Your task to perform on an android device: Do I have any events tomorrow? Image 0: 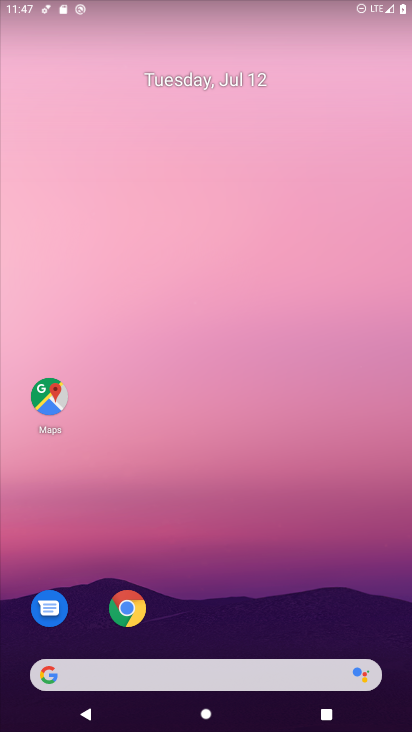
Step 0: click (190, 73)
Your task to perform on an android device: Do I have any events tomorrow? Image 1: 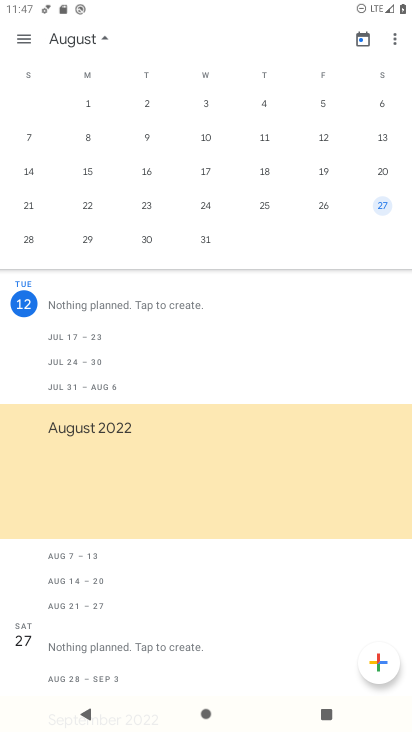
Step 1: drag from (25, 101) to (407, 496)
Your task to perform on an android device: Do I have any events tomorrow? Image 2: 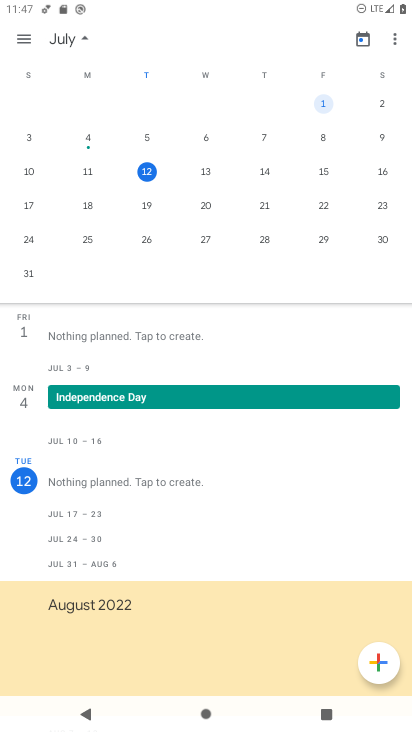
Step 2: click (177, 171)
Your task to perform on an android device: Do I have any events tomorrow? Image 3: 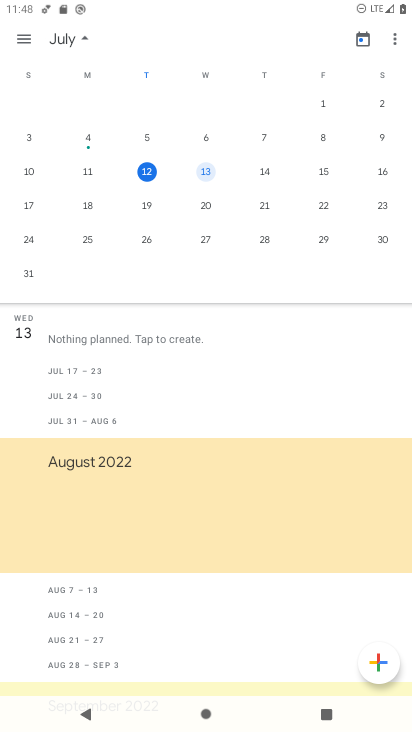
Step 3: task complete